Your task to perform on an android device: Open the calendar app, open the side menu, and click the "Day" option Image 0: 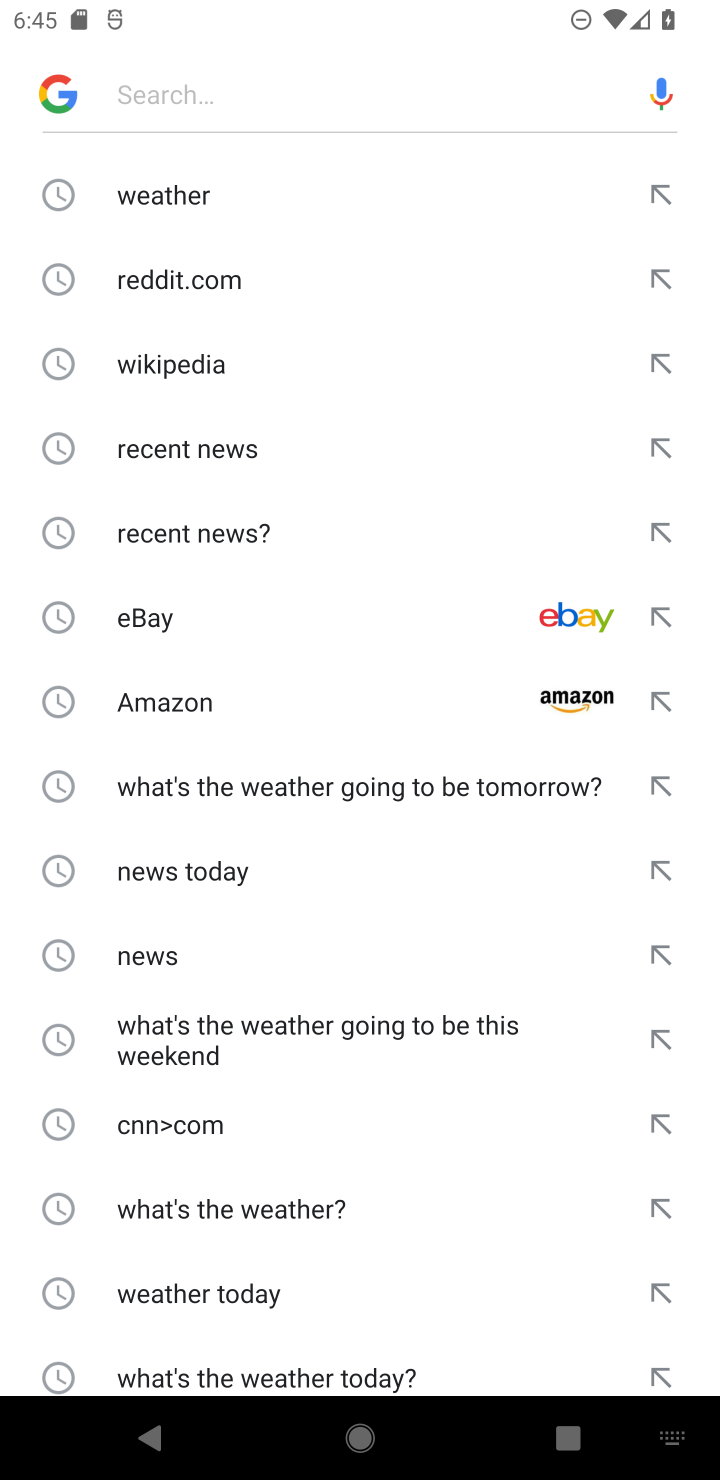
Step 0: press home button
Your task to perform on an android device: Open the calendar app, open the side menu, and click the "Day" option Image 1: 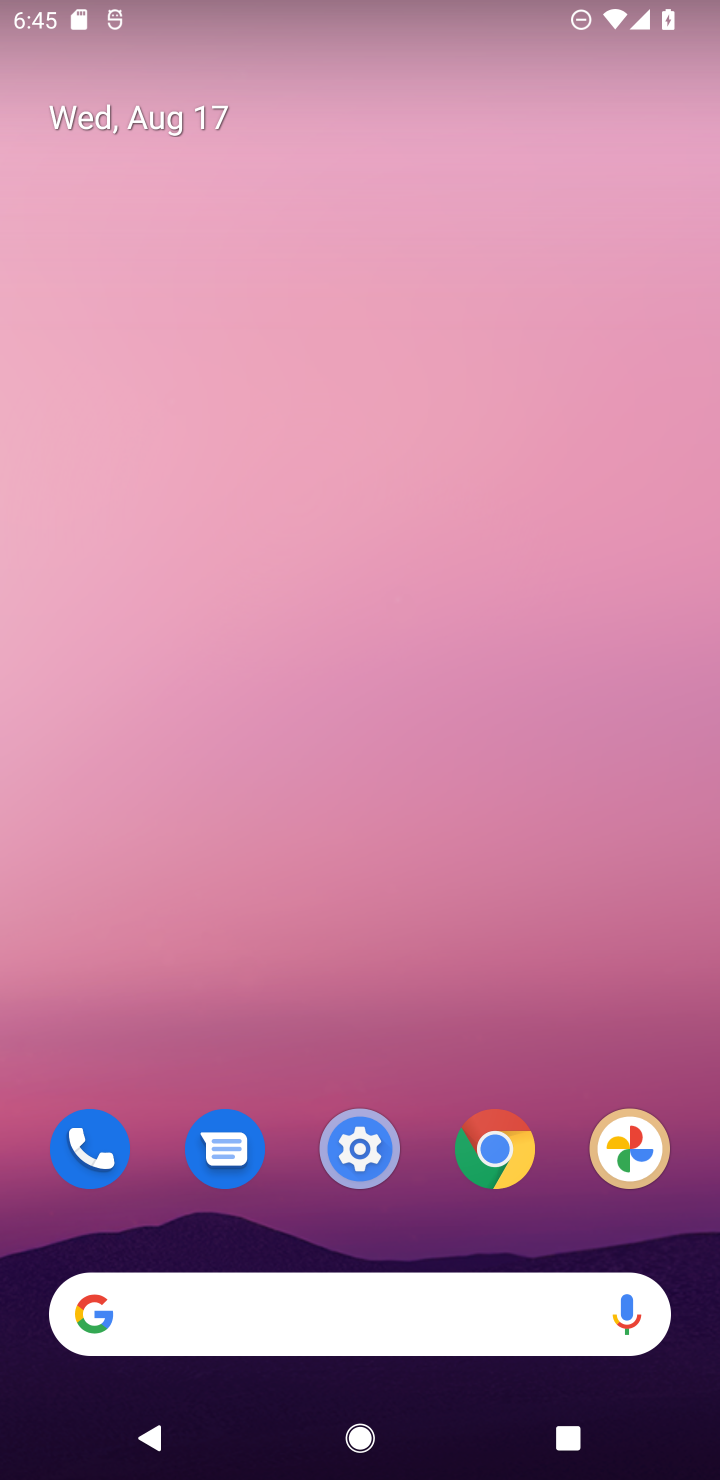
Step 1: drag from (411, 1237) to (306, 406)
Your task to perform on an android device: Open the calendar app, open the side menu, and click the "Day" option Image 2: 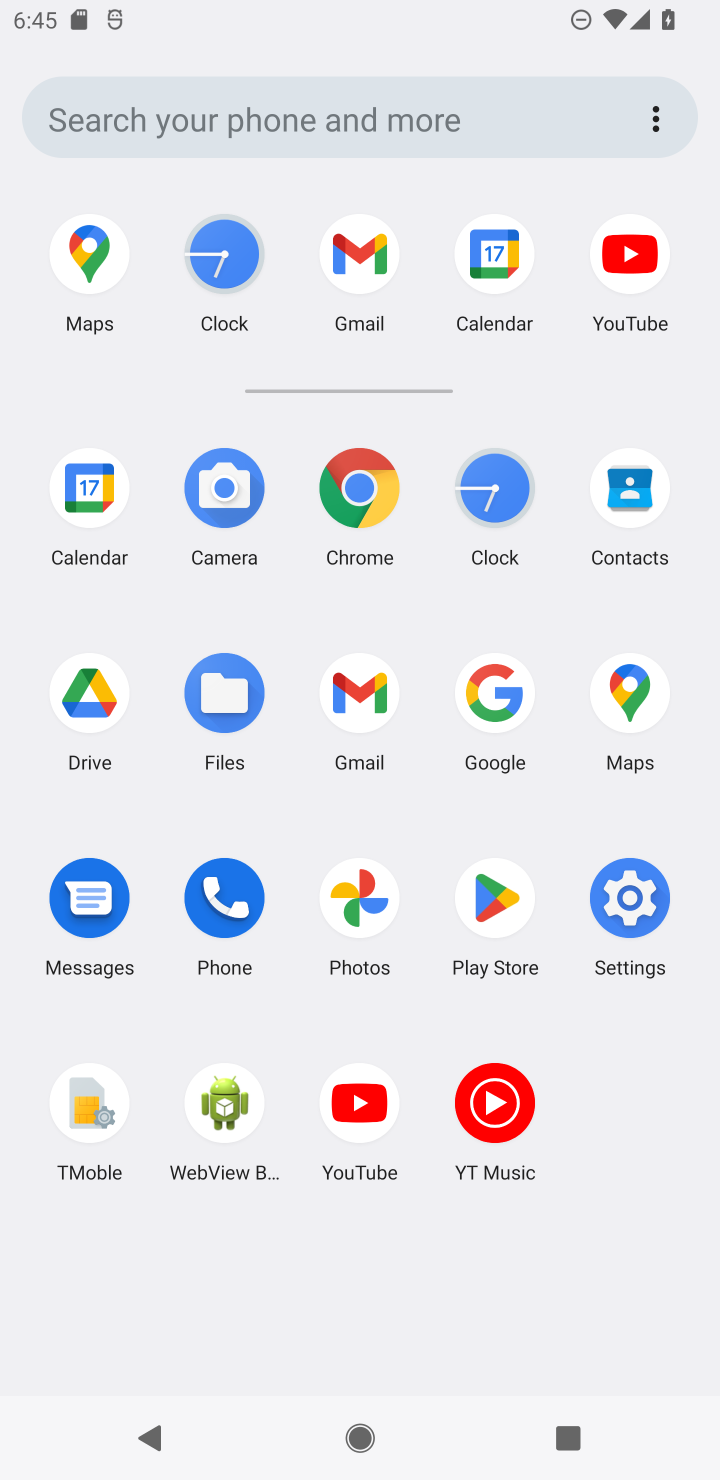
Step 2: click (92, 493)
Your task to perform on an android device: Open the calendar app, open the side menu, and click the "Day" option Image 3: 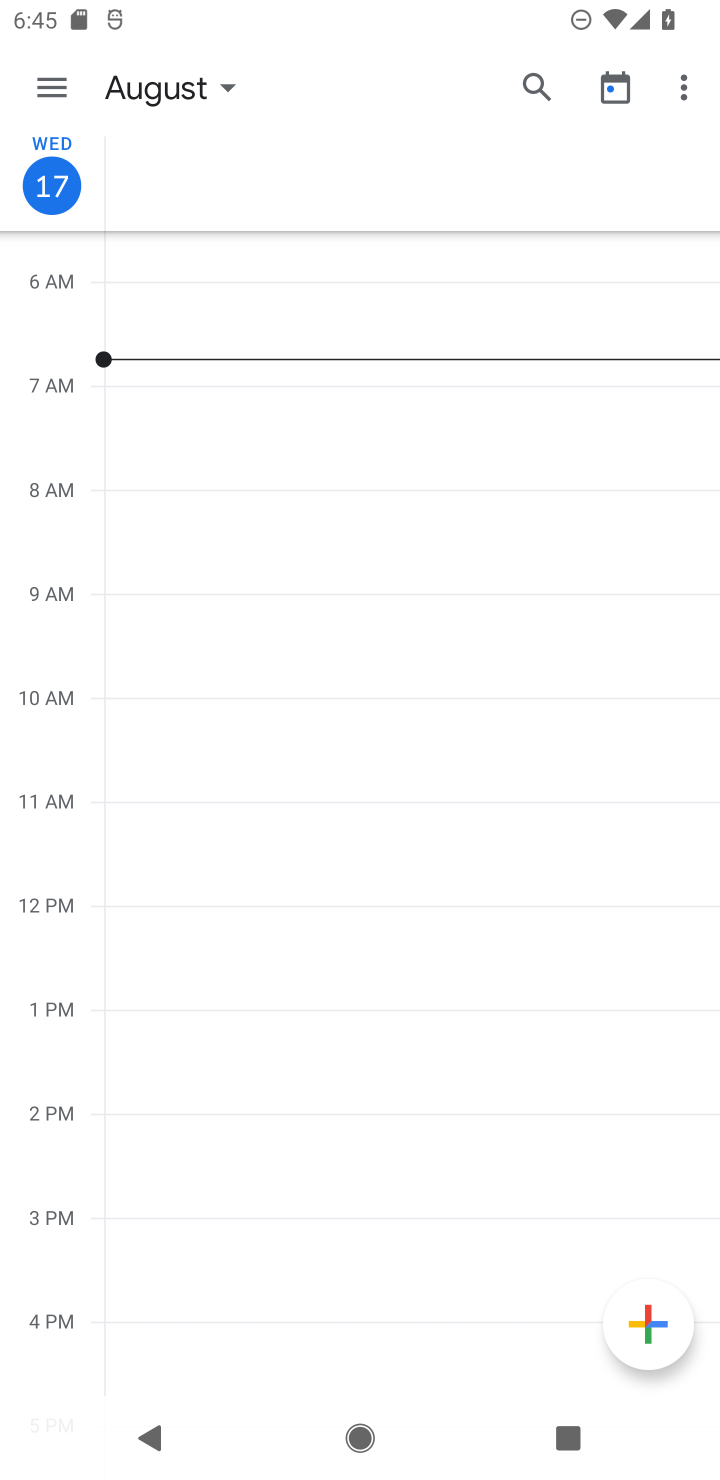
Step 3: click (52, 77)
Your task to perform on an android device: Open the calendar app, open the side menu, and click the "Day" option Image 4: 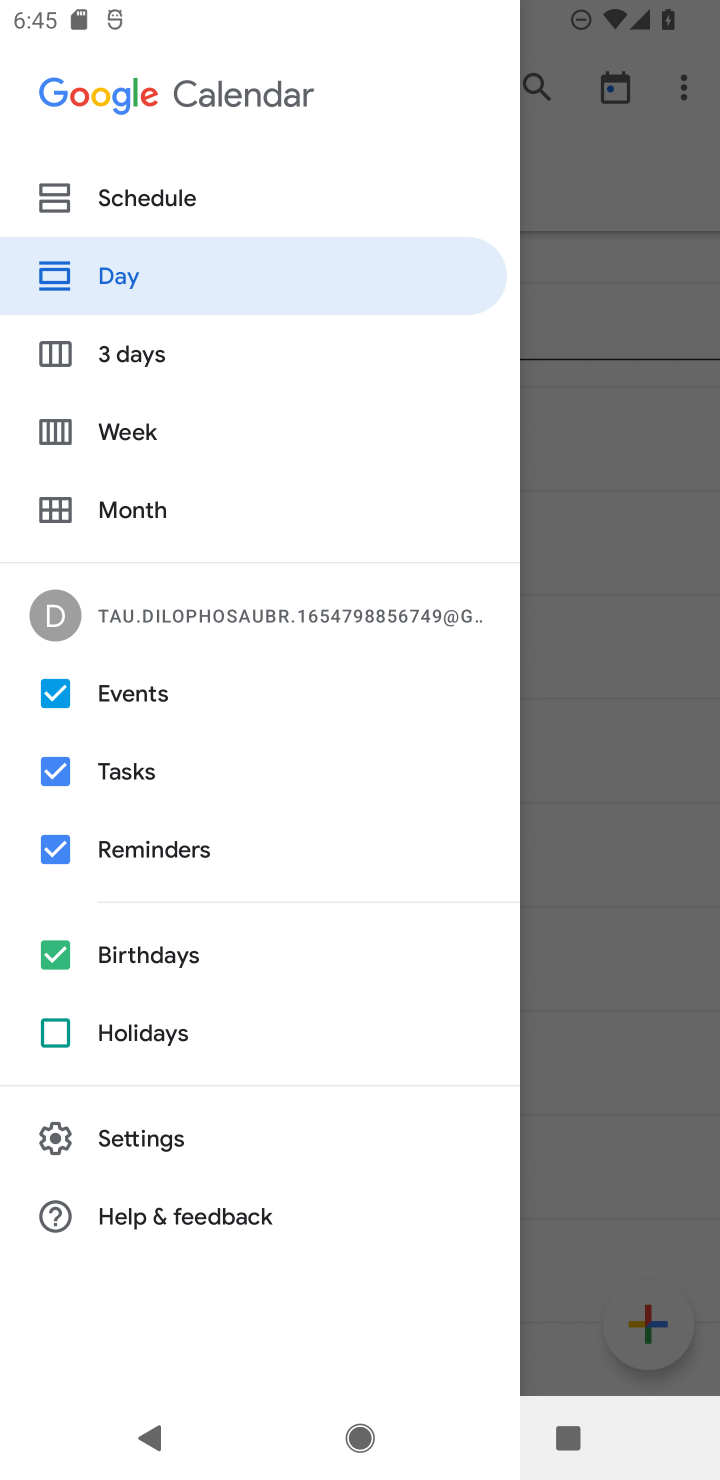
Step 4: click (131, 266)
Your task to perform on an android device: Open the calendar app, open the side menu, and click the "Day" option Image 5: 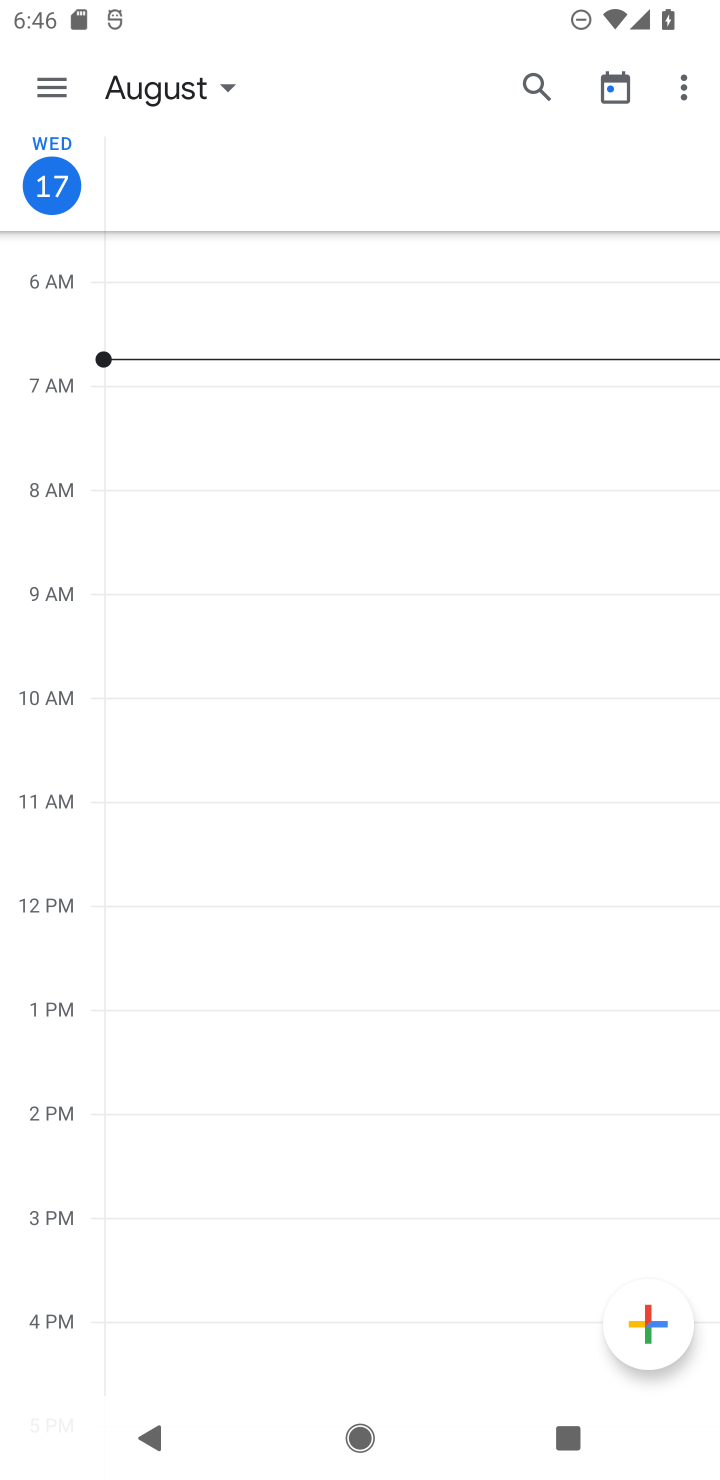
Step 5: task complete